Your task to perform on an android device: Open the web browser Image 0: 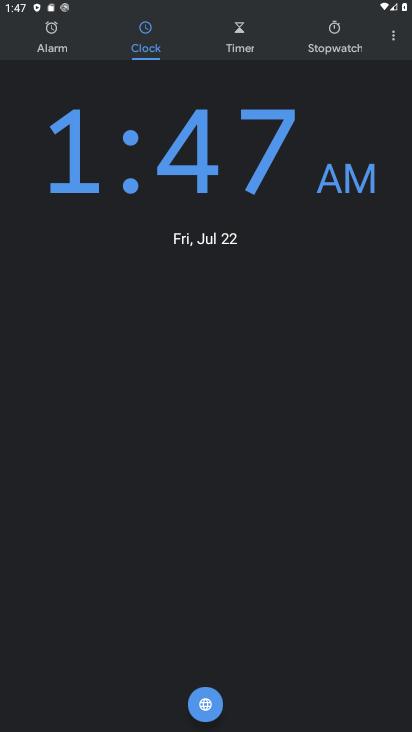
Step 0: click (405, 343)
Your task to perform on an android device: Open the web browser Image 1: 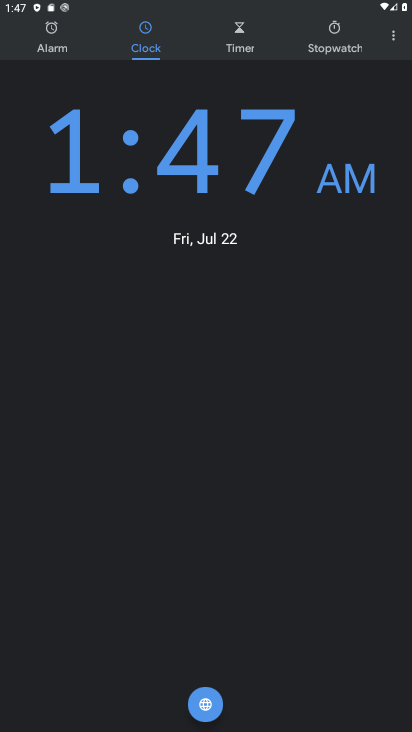
Step 1: press home button
Your task to perform on an android device: Open the web browser Image 2: 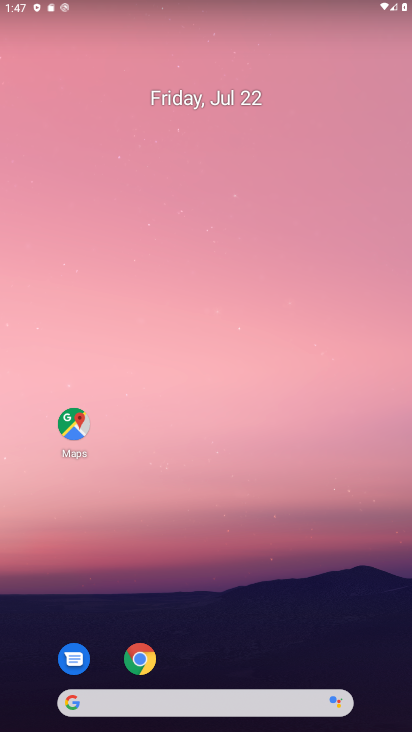
Step 2: click (145, 665)
Your task to perform on an android device: Open the web browser Image 3: 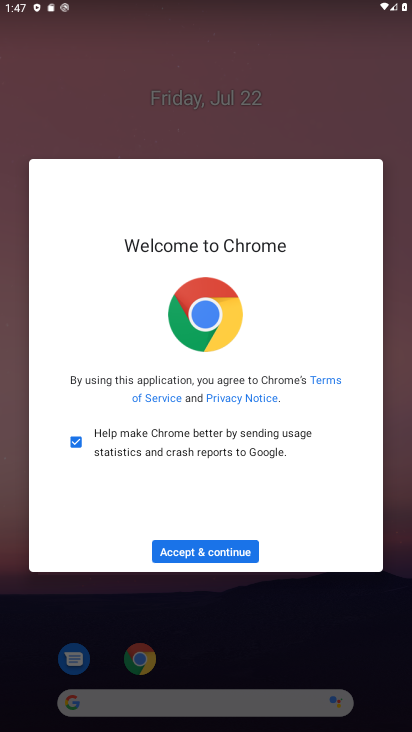
Step 3: click (221, 549)
Your task to perform on an android device: Open the web browser Image 4: 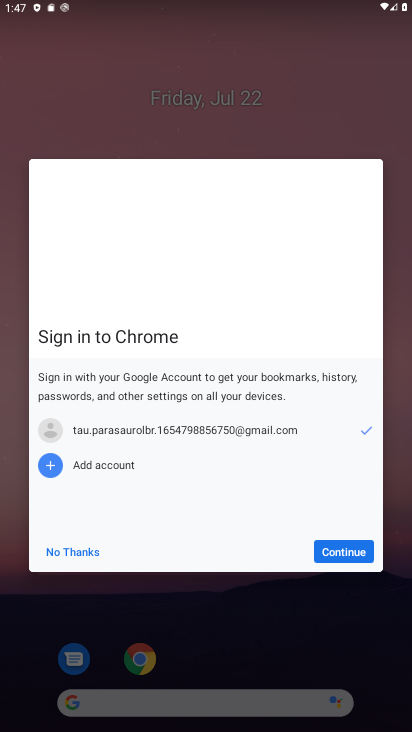
Step 4: click (325, 555)
Your task to perform on an android device: Open the web browser Image 5: 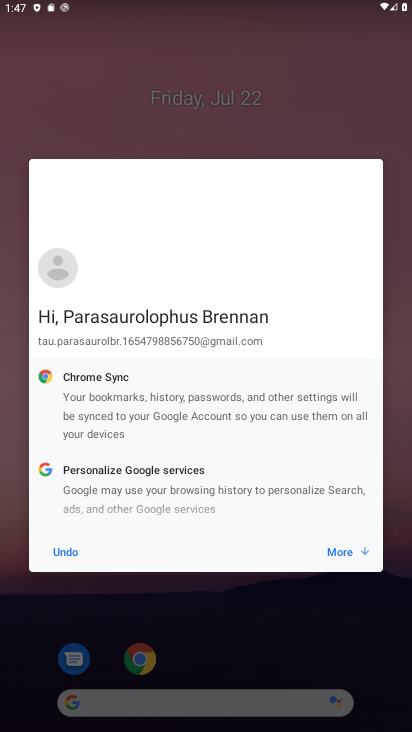
Step 5: click (340, 546)
Your task to perform on an android device: Open the web browser Image 6: 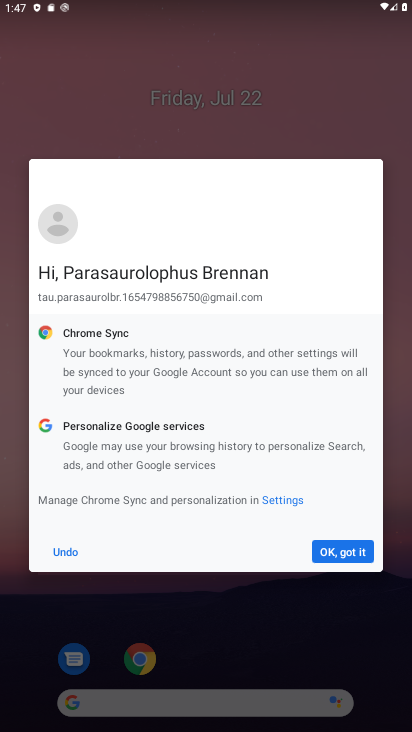
Step 6: click (340, 546)
Your task to perform on an android device: Open the web browser Image 7: 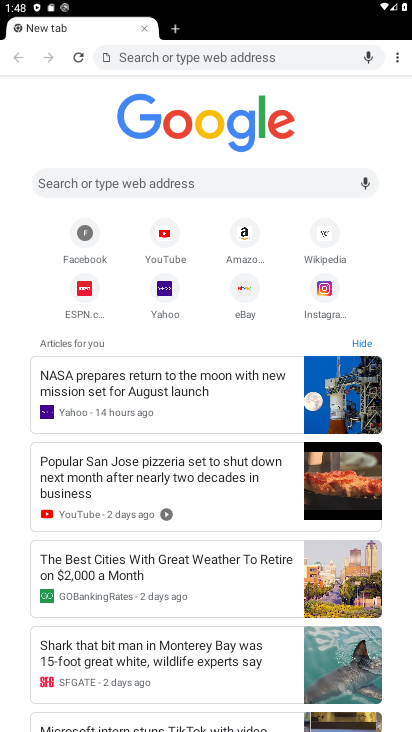
Step 7: task complete